Your task to perform on an android device: Search for "usb-c to usb-b" on walmart.com, select the first entry, add it to the cart, then select checkout. Image 0: 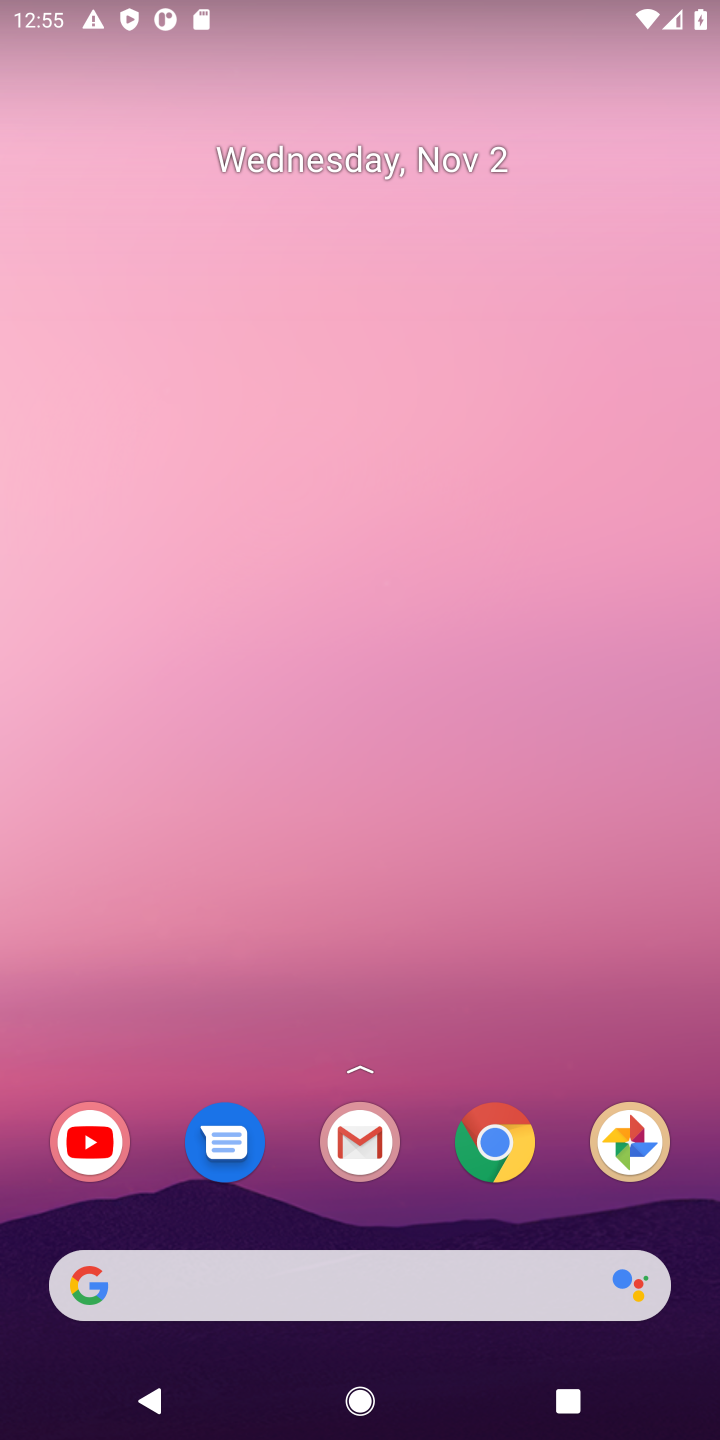
Step 0: press home button
Your task to perform on an android device: Search for "usb-c to usb-b" on walmart.com, select the first entry, add it to the cart, then select checkout. Image 1: 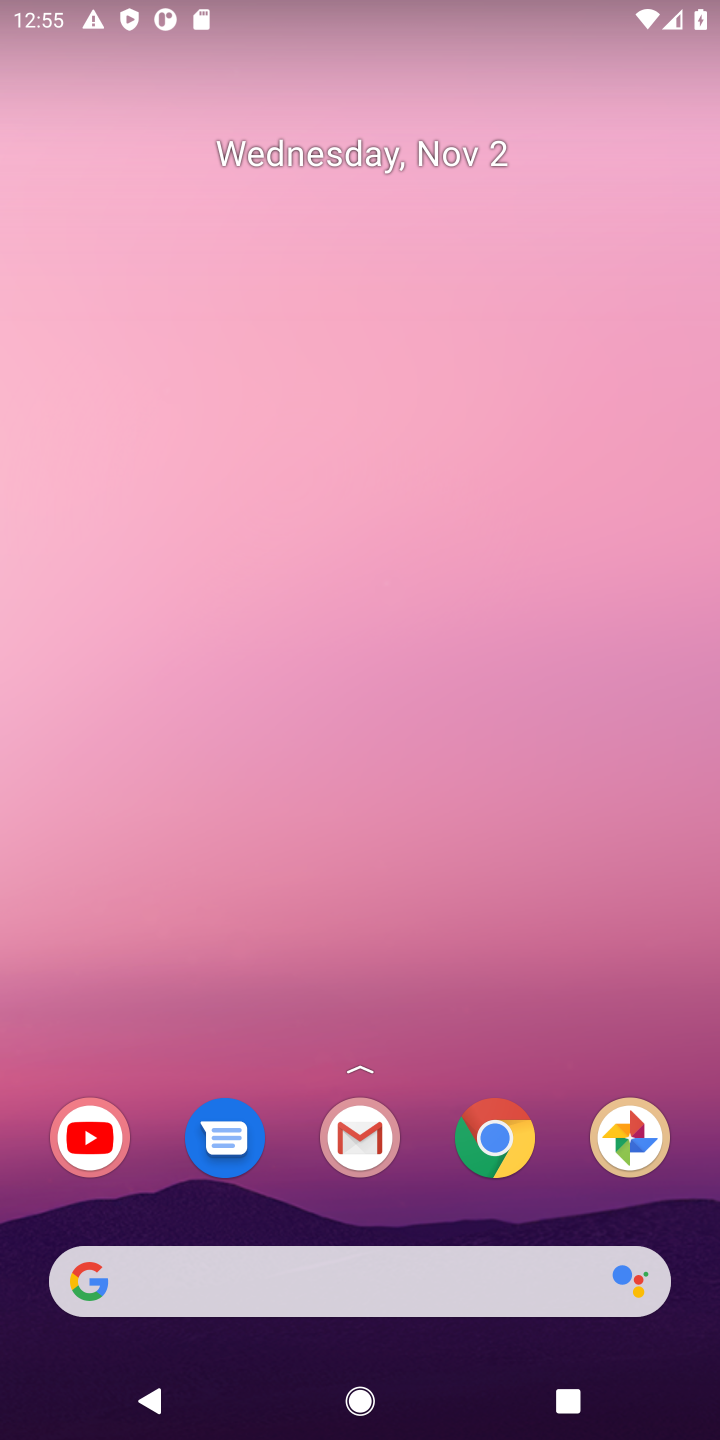
Step 1: press home button
Your task to perform on an android device: Search for "usb-c to usb-b" on walmart.com, select the first entry, add it to the cart, then select checkout. Image 2: 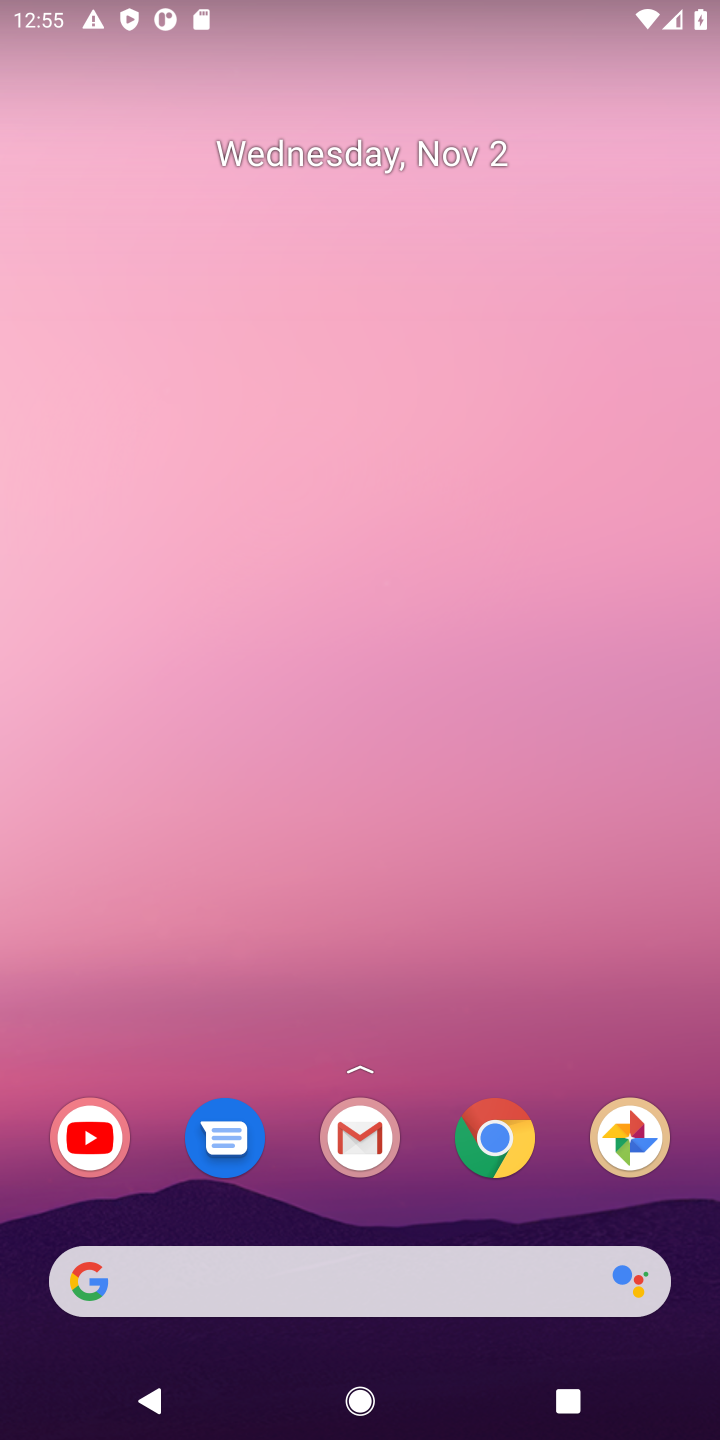
Step 2: click (144, 1282)
Your task to perform on an android device: Search for "usb-c to usb-b" on walmart.com, select the first entry, add it to the cart, then select checkout. Image 3: 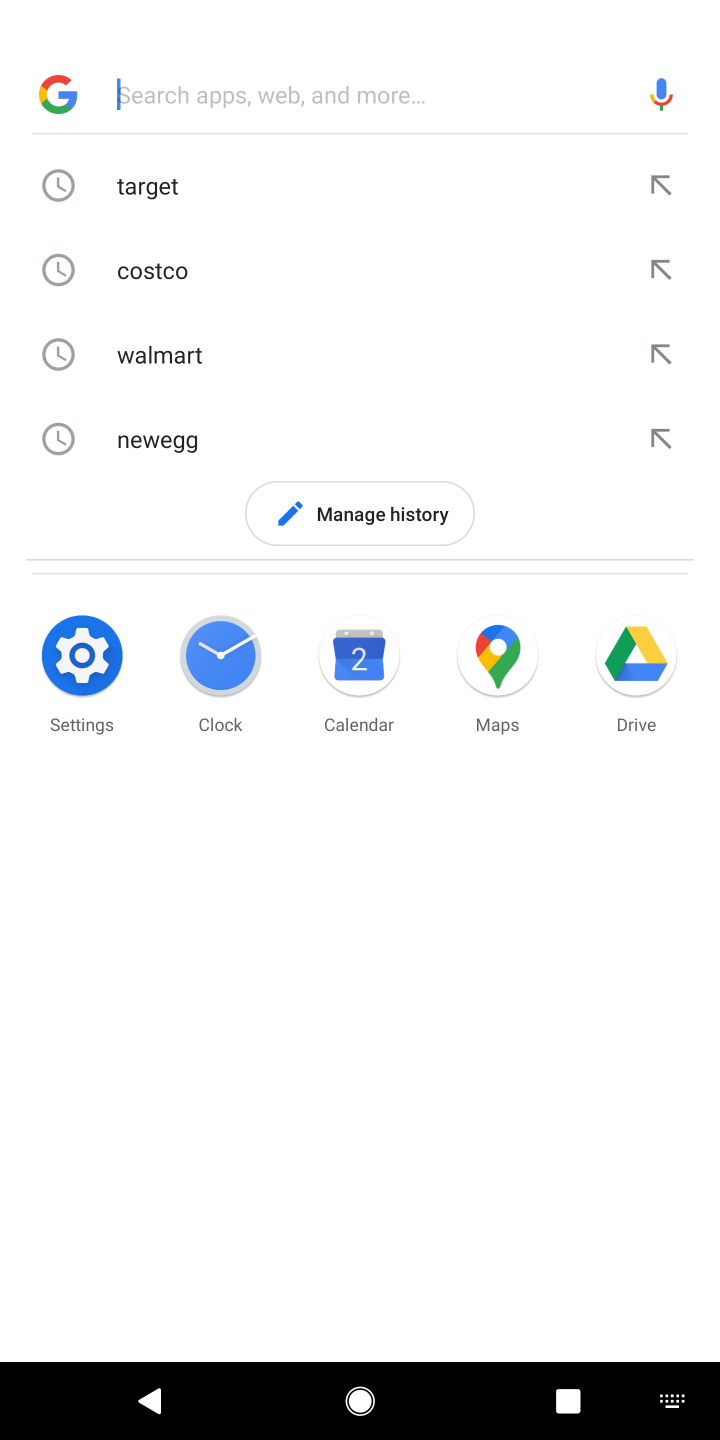
Step 3: click (195, 362)
Your task to perform on an android device: Search for "usb-c to usb-b" on walmart.com, select the first entry, add it to the cart, then select checkout. Image 4: 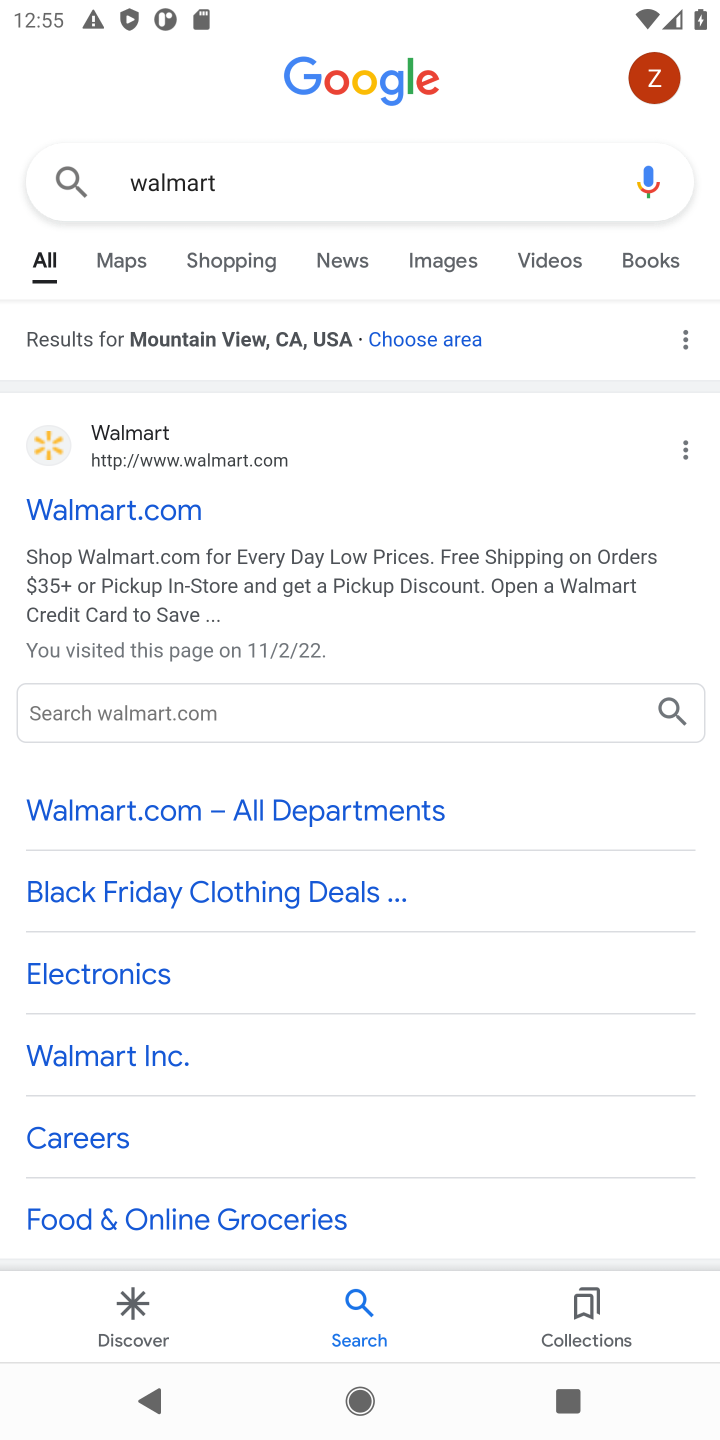
Step 4: click (130, 506)
Your task to perform on an android device: Search for "usb-c to usb-b" on walmart.com, select the first entry, add it to the cart, then select checkout. Image 5: 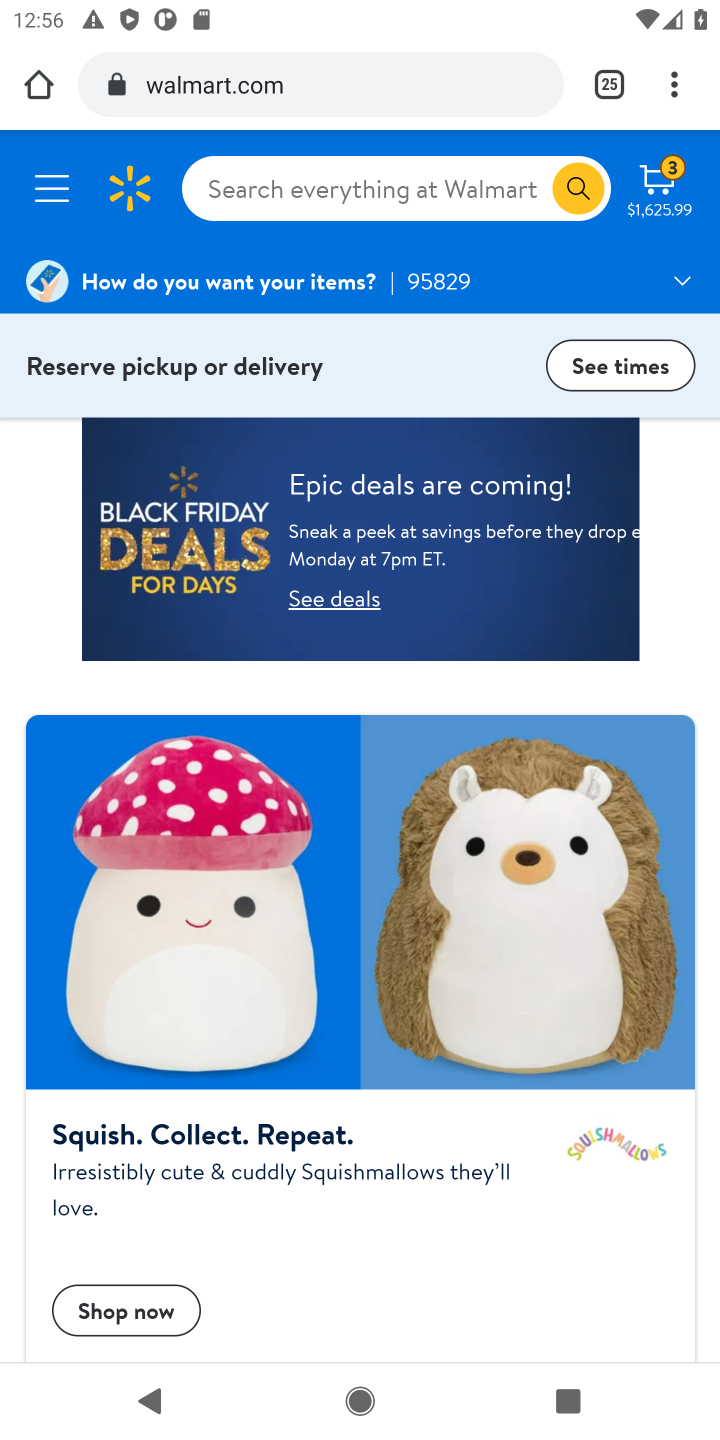
Step 5: type "usb-c to usb-b"
Your task to perform on an android device: Search for "usb-c to usb-b" on walmart.com, select the first entry, add it to the cart, then select checkout. Image 6: 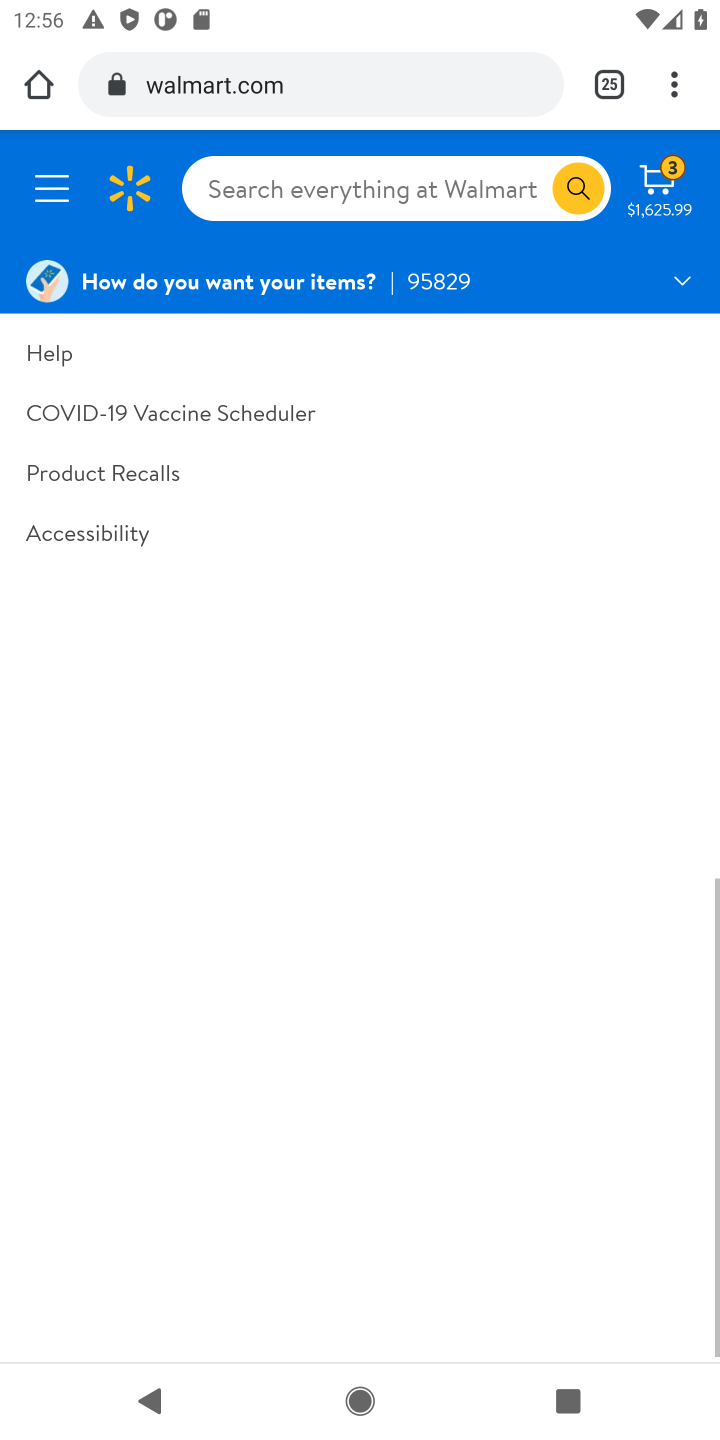
Step 6: press enter
Your task to perform on an android device: Search for "usb-c to usb-b" on walmart.com, select the first entry, add it to the cart, then select checkout. Image 7: 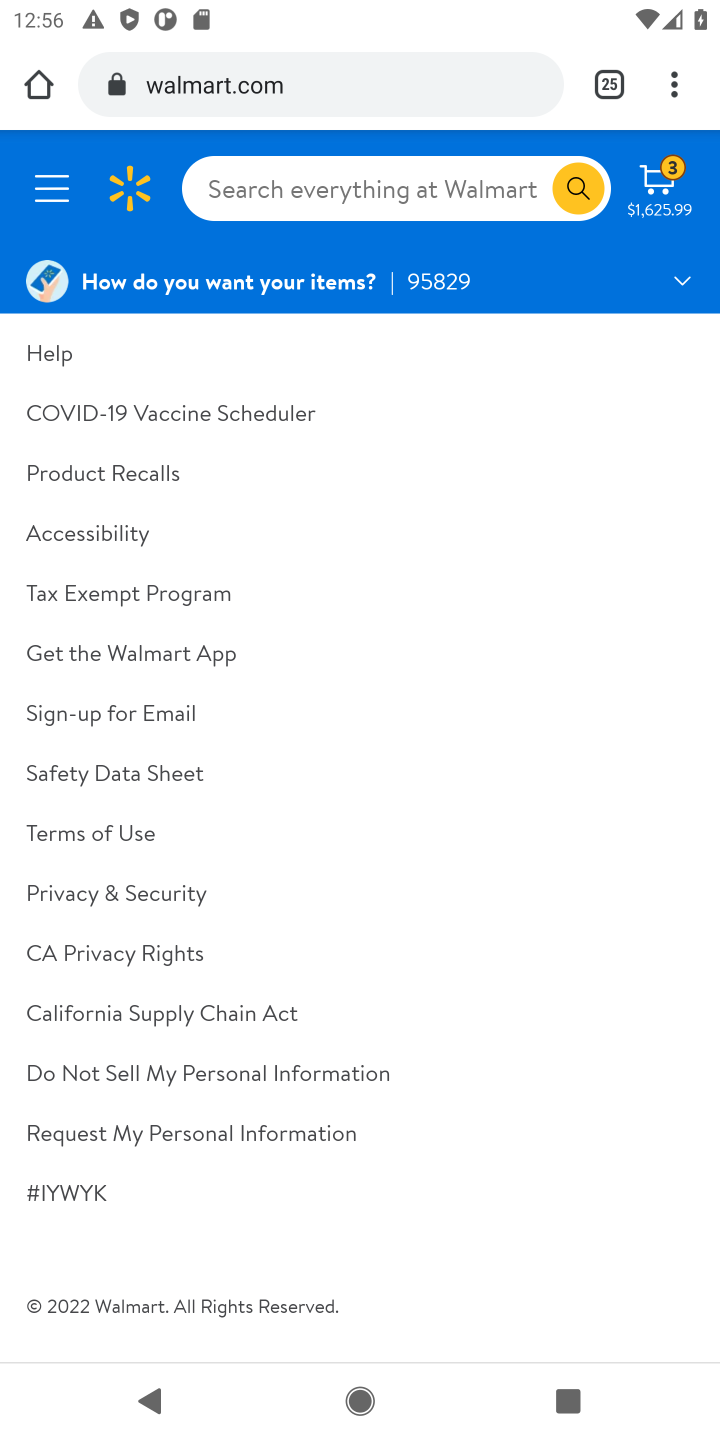
Step 7: click (310, 172)
Your task to perform on an android device: Search for "usb-c to usb-b" on walmart.com, select the first entry, add it to the cart, then select checkout. Image 8: 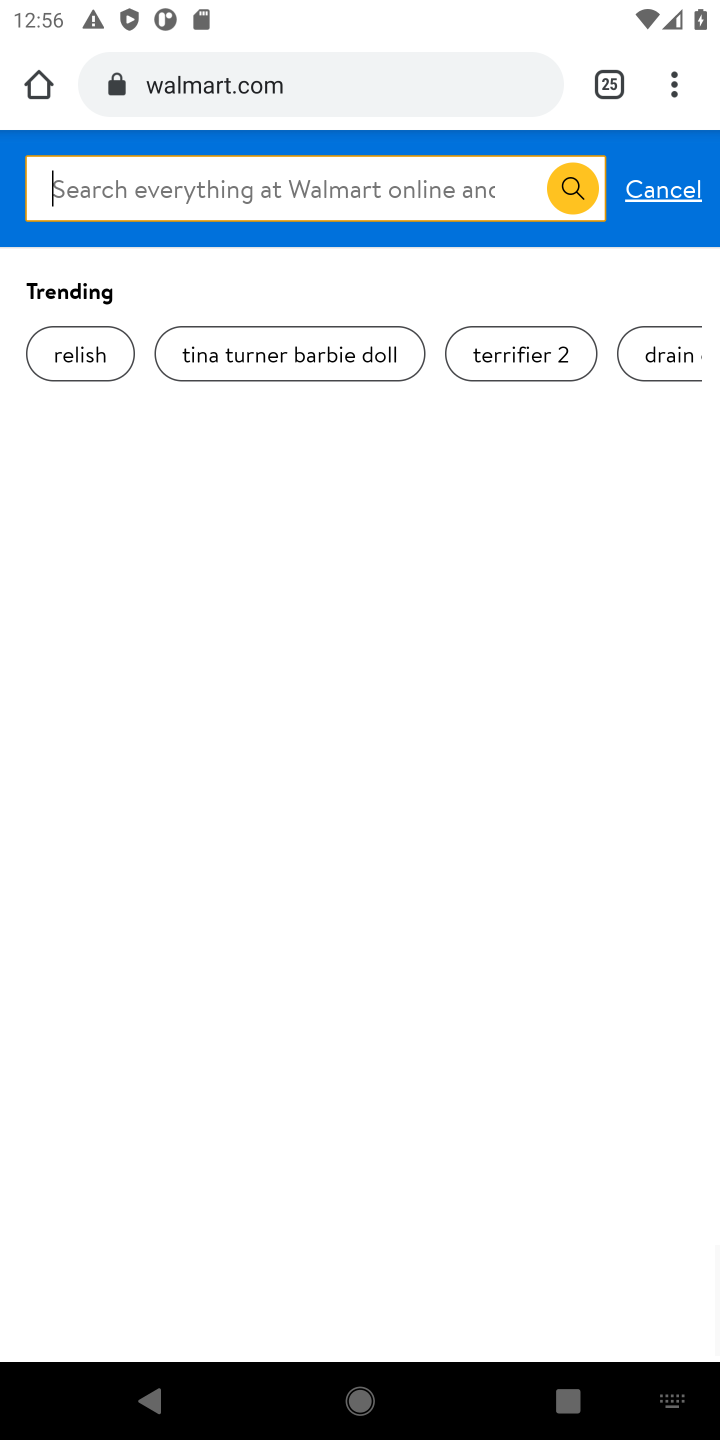
Step 8: type "usb-c to usb-b"
Your task to perform on an android device: Search for "usb-c to usb-b" on walmart.com, select the first entry, add it to the cart, then select checkout. Image 9: 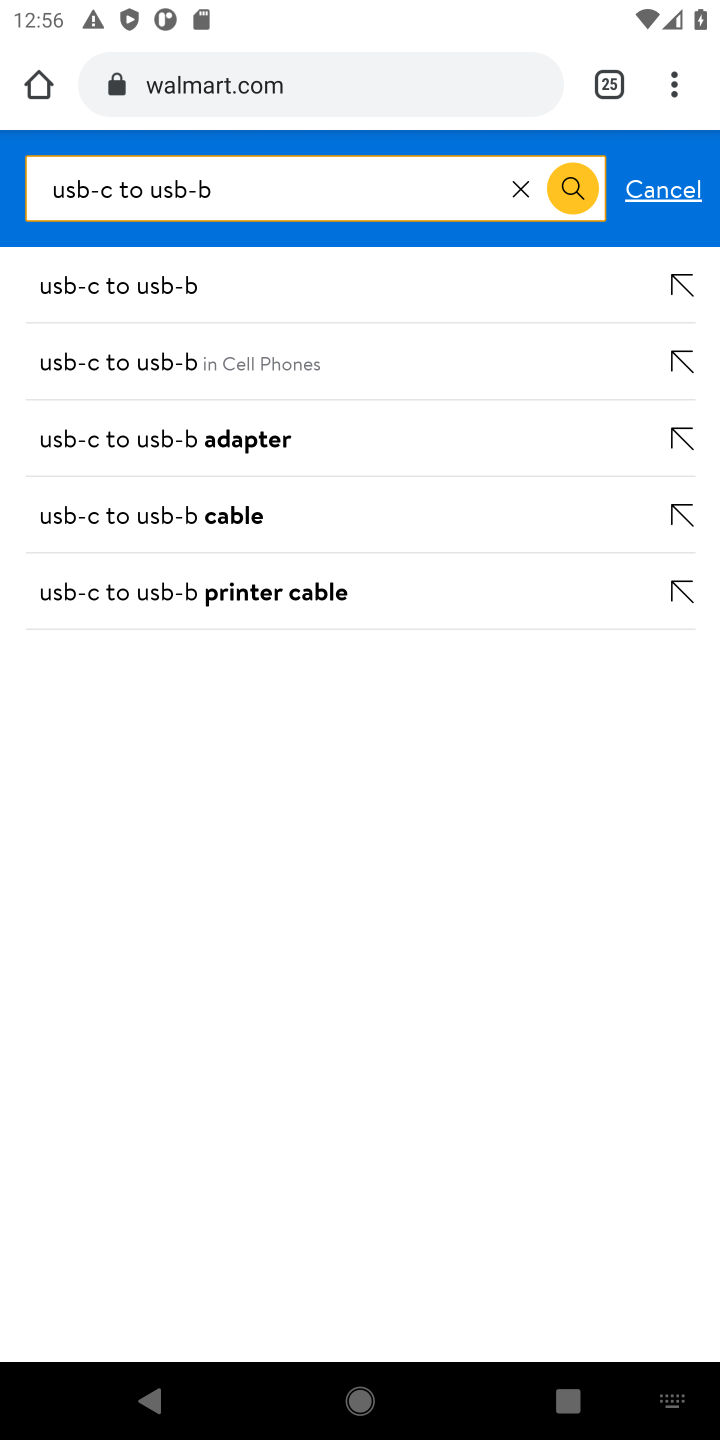
Step 9: click (164, 283)
Your task to perform on an android device: Search for "usb-c to usb-b" on walmart.com, select the first entry, add it to the cart, then select checkout. Image 10: 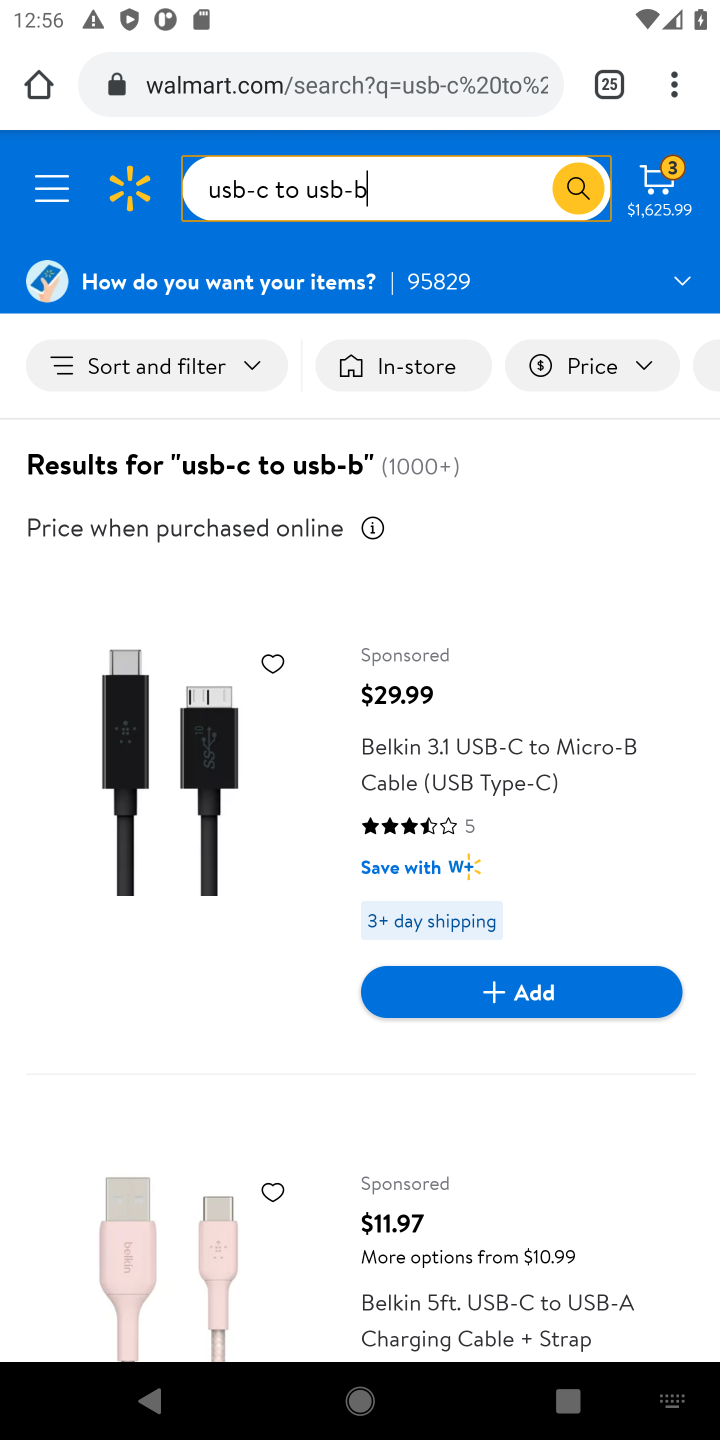
Step 10: drag from (484, 1139) to (488, 744)
Your task to perform on an android device: Search for "usb-c to usb-b" on walmart.com, select the first entry, add it to the cart, then select checkout. Image 11: 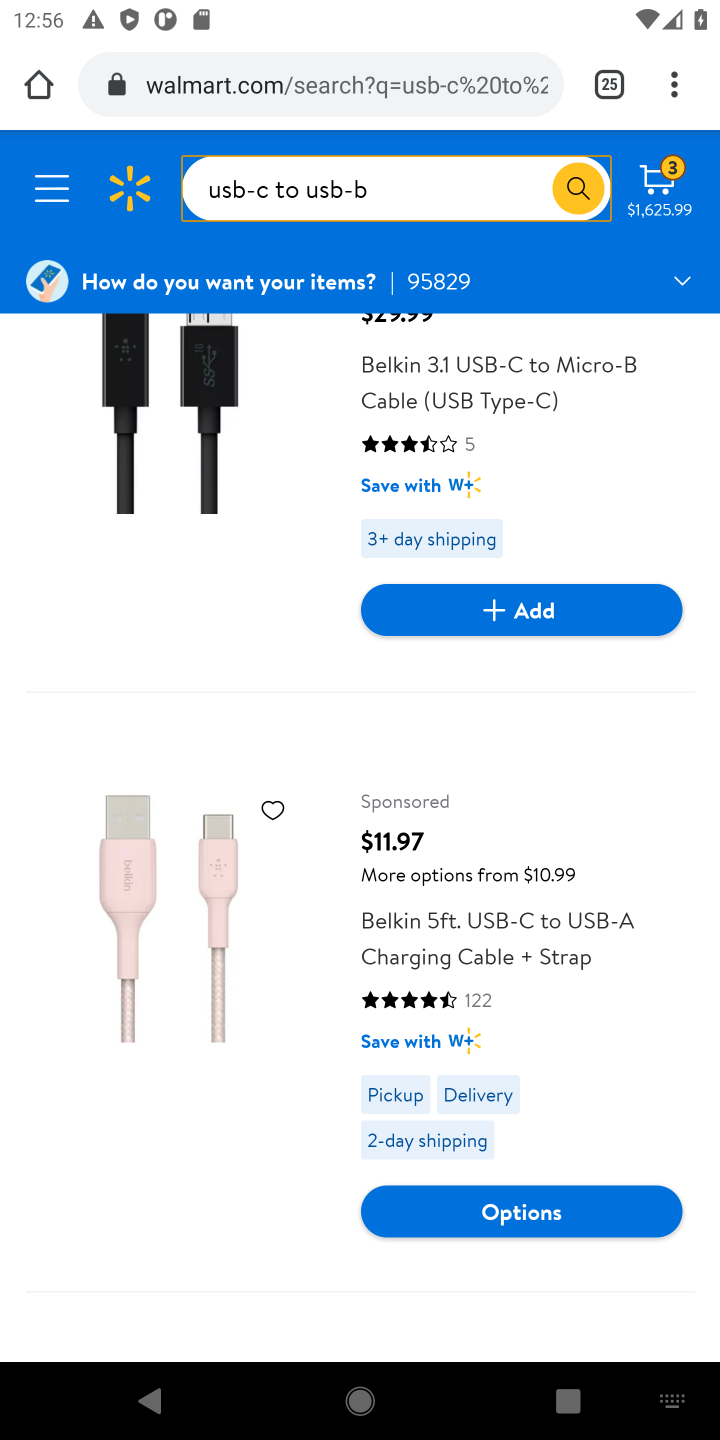
Step 11: drag from (410, 1002) to (446, 771)
Your task to perform on an android device: Search for "usb-c to usb-b" on walmart.com, select the first entry, add it to the cart, then select checkout. Image 12: 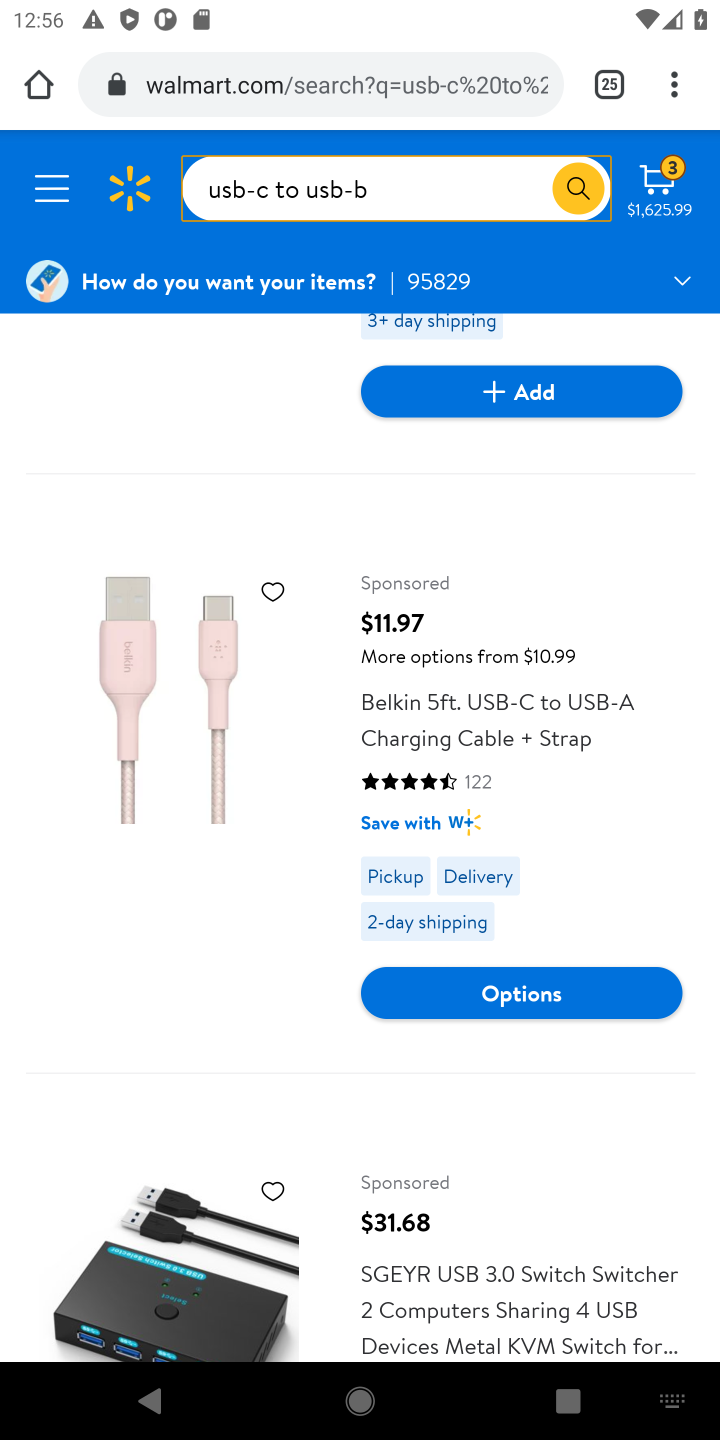
Step 12: drag from (311, 1012) to (349, 756)
Your task to perform on an android device: Search for "usb-c to usb-b" on walmart.com, select the first entry, add it to the cart, then select checkout. Image 13: 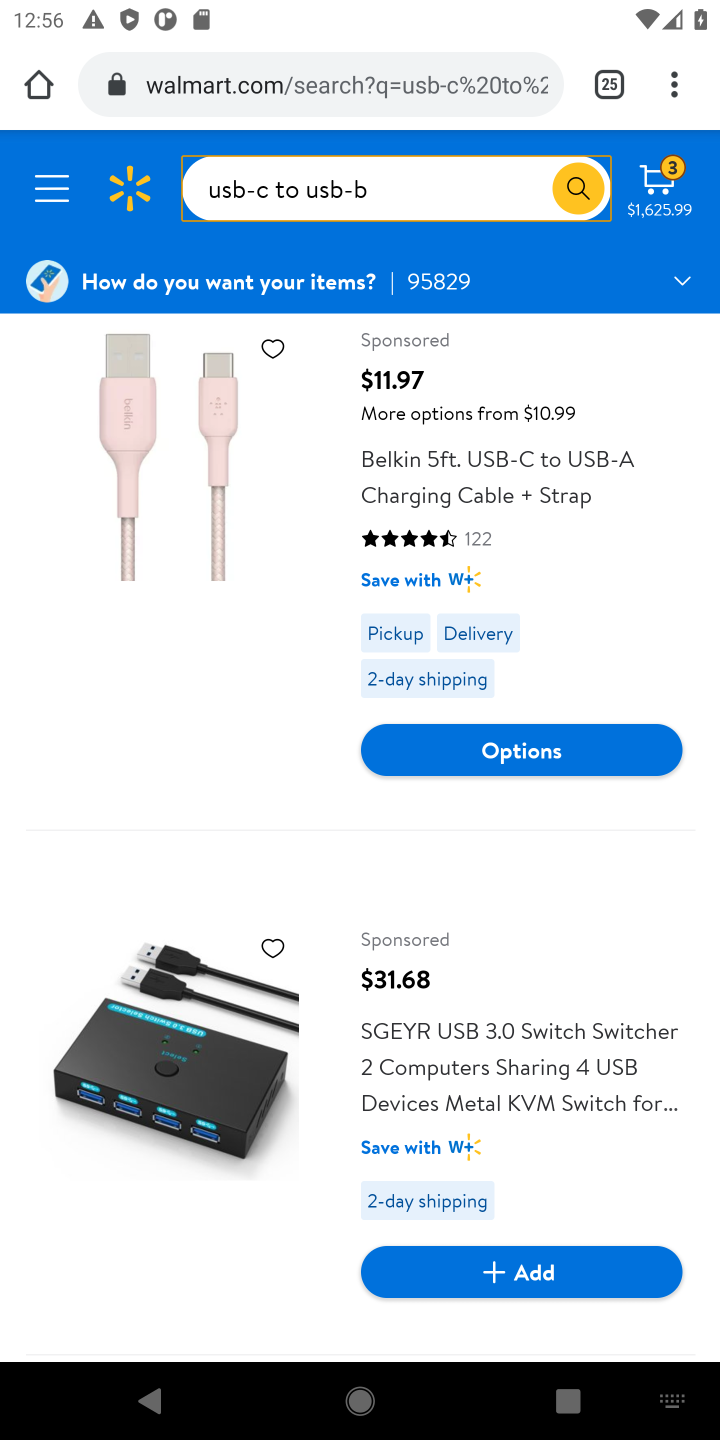
Step 13: drag from (385, 1041) to (401, 708)
Your task to perform on an android device: Search for "usb-c to usb-b" on walmart.com, select the first entry, add it to the cart, then select checkout. Image 14: 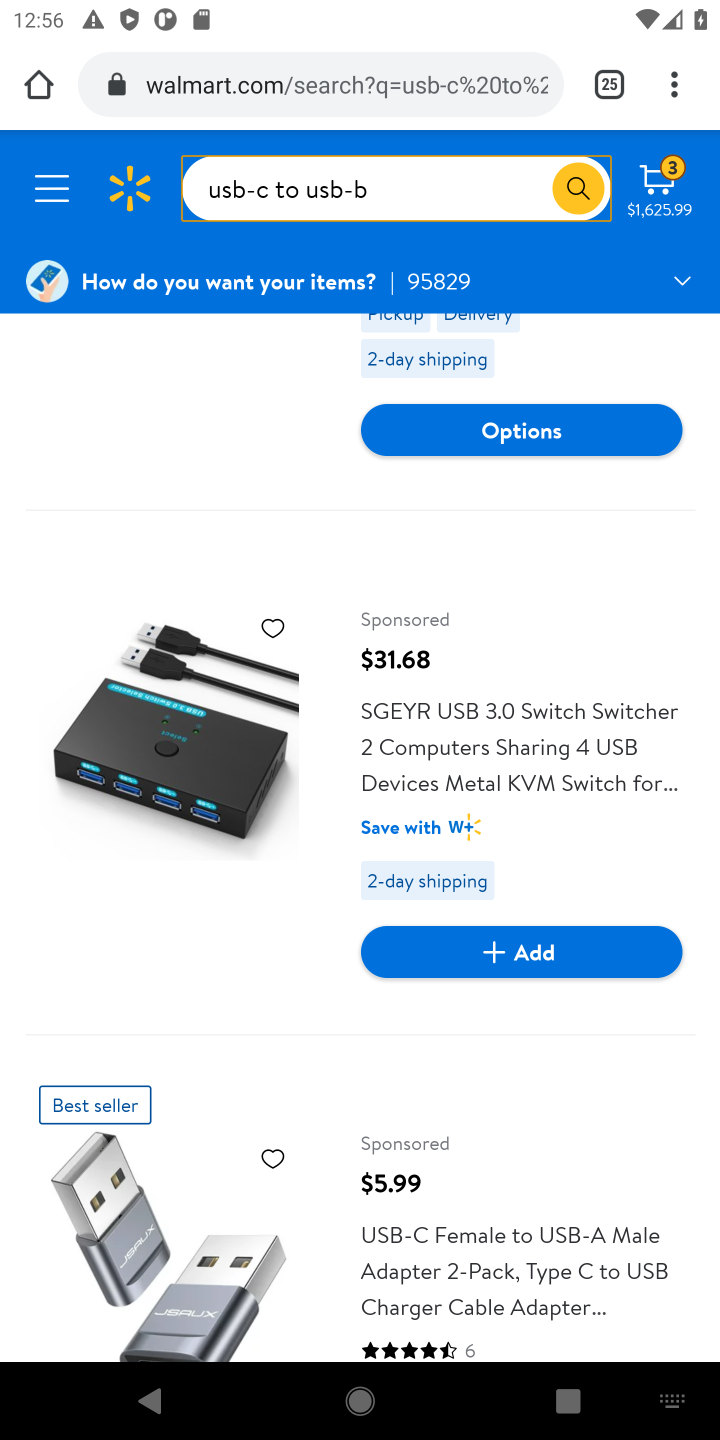
Step 14: drag from (366, 1024) to (400, 679)
Your task to perform on an android device: Search for "usb-c to usb-b" on walmart.com, select the first entry, add it to the cart, then select checkout. Image 15: 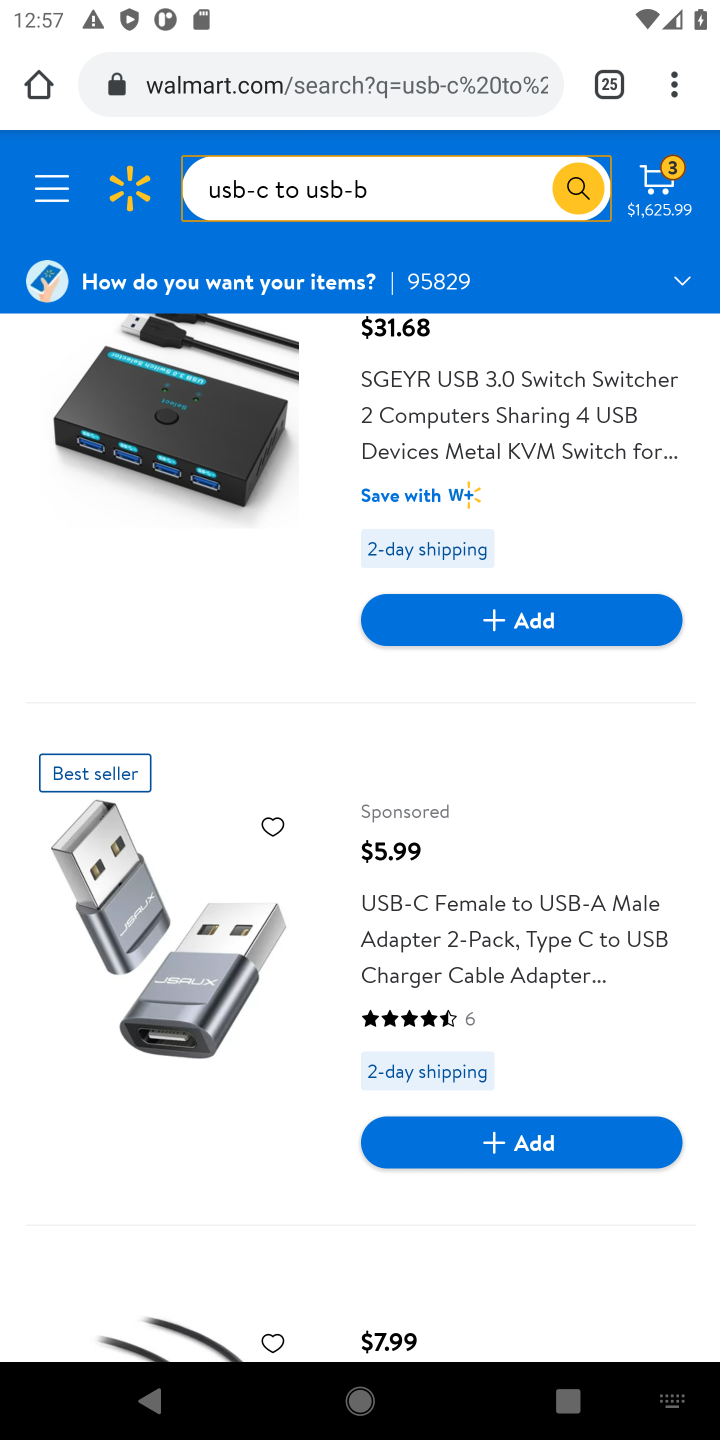
Step 15: drag from (333, 1083) to (343, 851)
Your task to perform on an android device: Search for "usb-c to usb-b" on walmart.com, select the first entry, add it to the cart, then select checkout. Image 16: 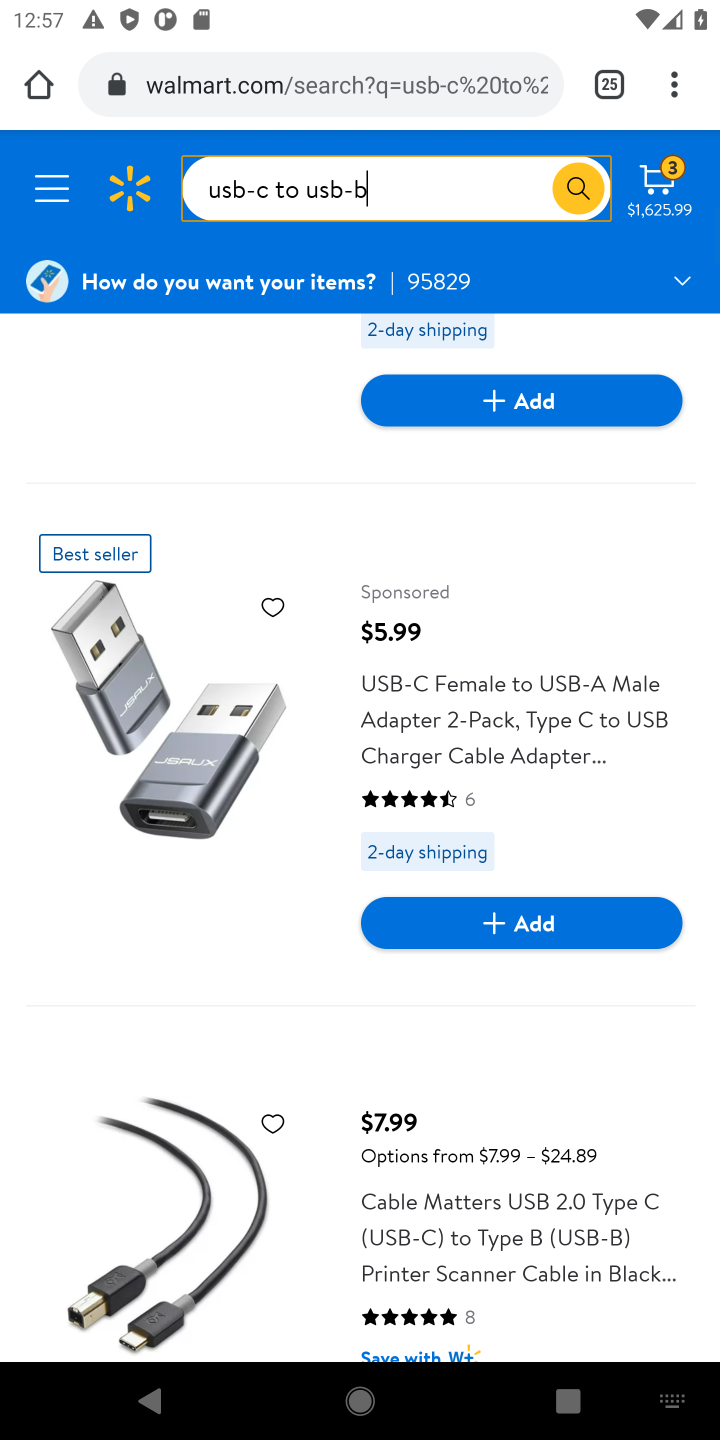
Step 16: drag from (265, 1140) to (289, 892)
Your task to perform on an android device: Search for "usb-c to usb-b" on walmart.com, select the first entry, add it to the cart, then select checkout. Image 17: 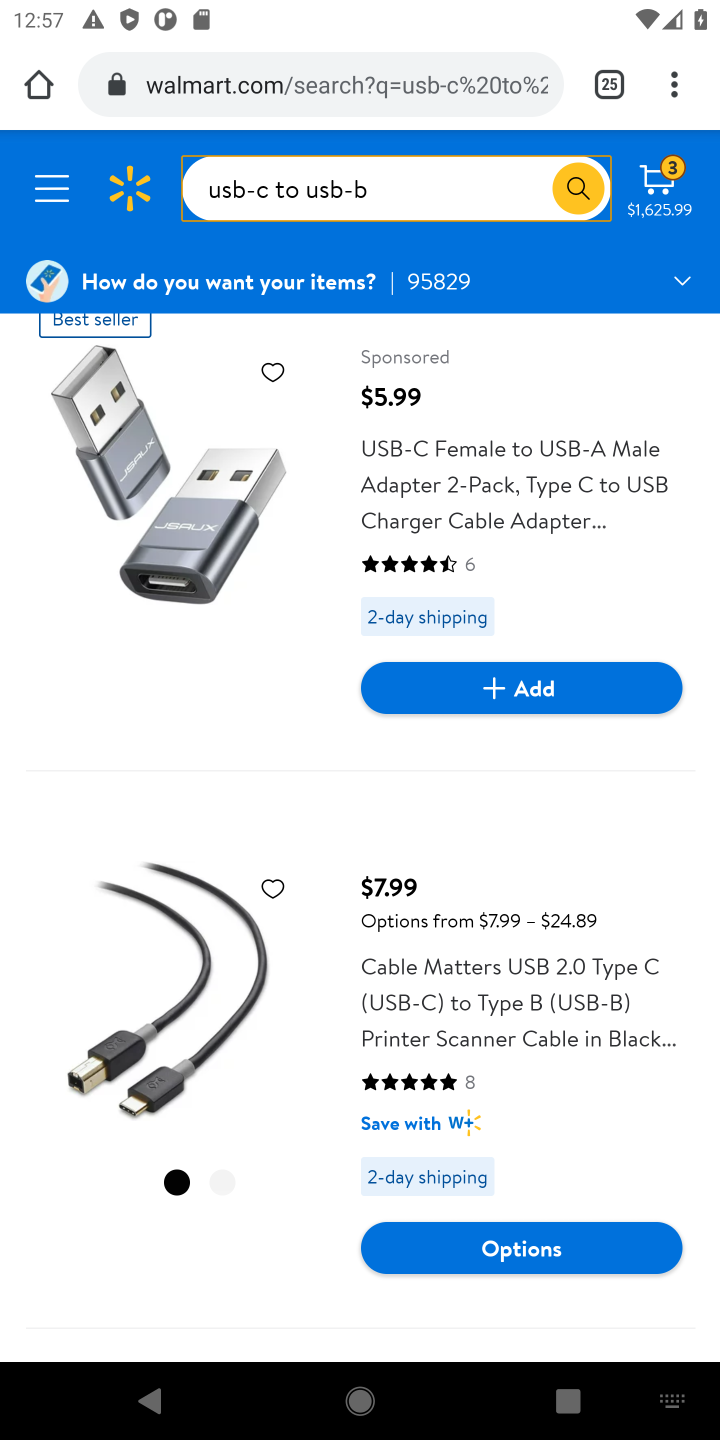
Step 17: click (443, 967)
Your task to perform on an android device: Search for "usb-c to usb-b" on walmart.com, select the first entry, add it to the cart, then select checkout. Image 18: 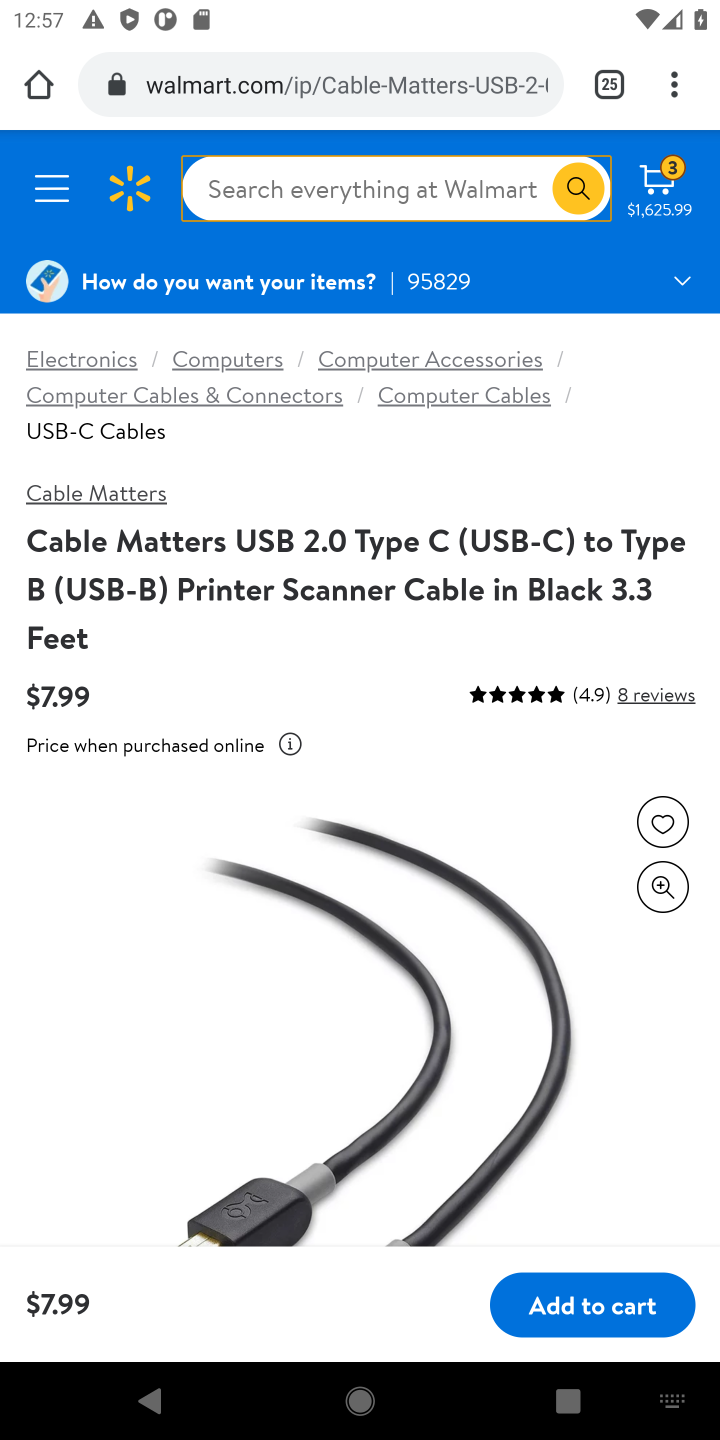
Step 18: click (575, 1306)
Your task to perform on an android device: Search for "usb-c to usb-b" on walmart.com, select the first entry, add it to the cart, then select checkout. Image 19: 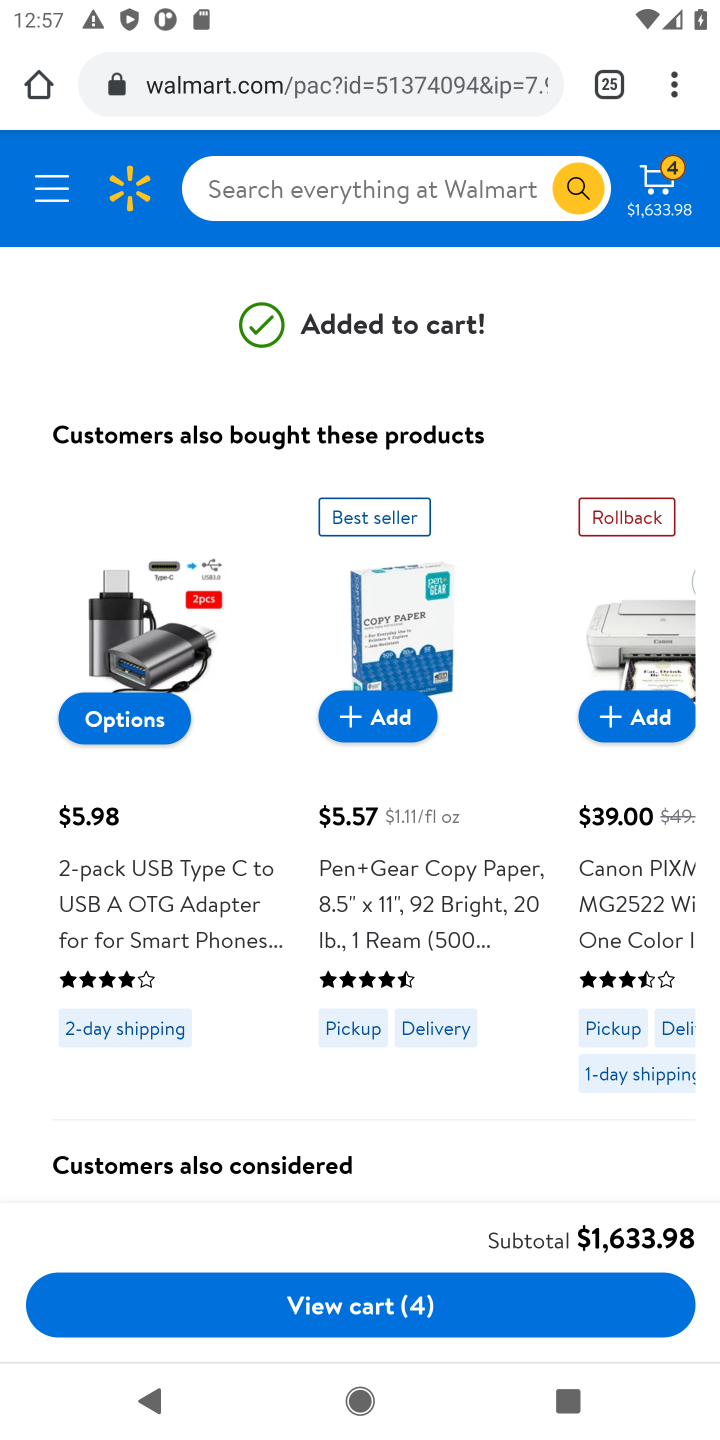
Step 19: click (405, 1311)
Your task to perform on an android device: Search for "usb-c to usb-b" on walmart.com, select the first entry, add it to the cart, then select checkout. Image 20: 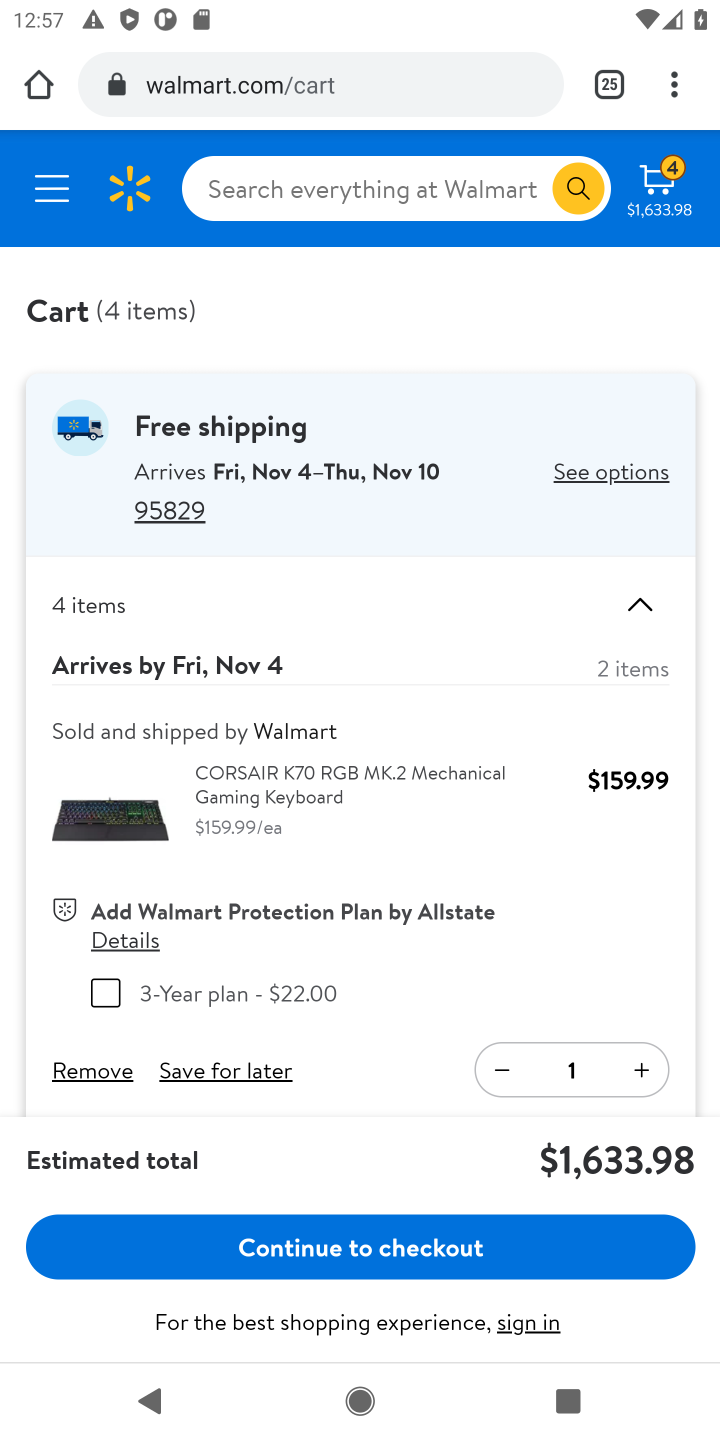
Step 20: click (328, 1246)
Your task to perform on an android device: Search for "usb-c to usb-b" on walmart.com, select the first entry, add it to the cart, then select checkout. Image 21: 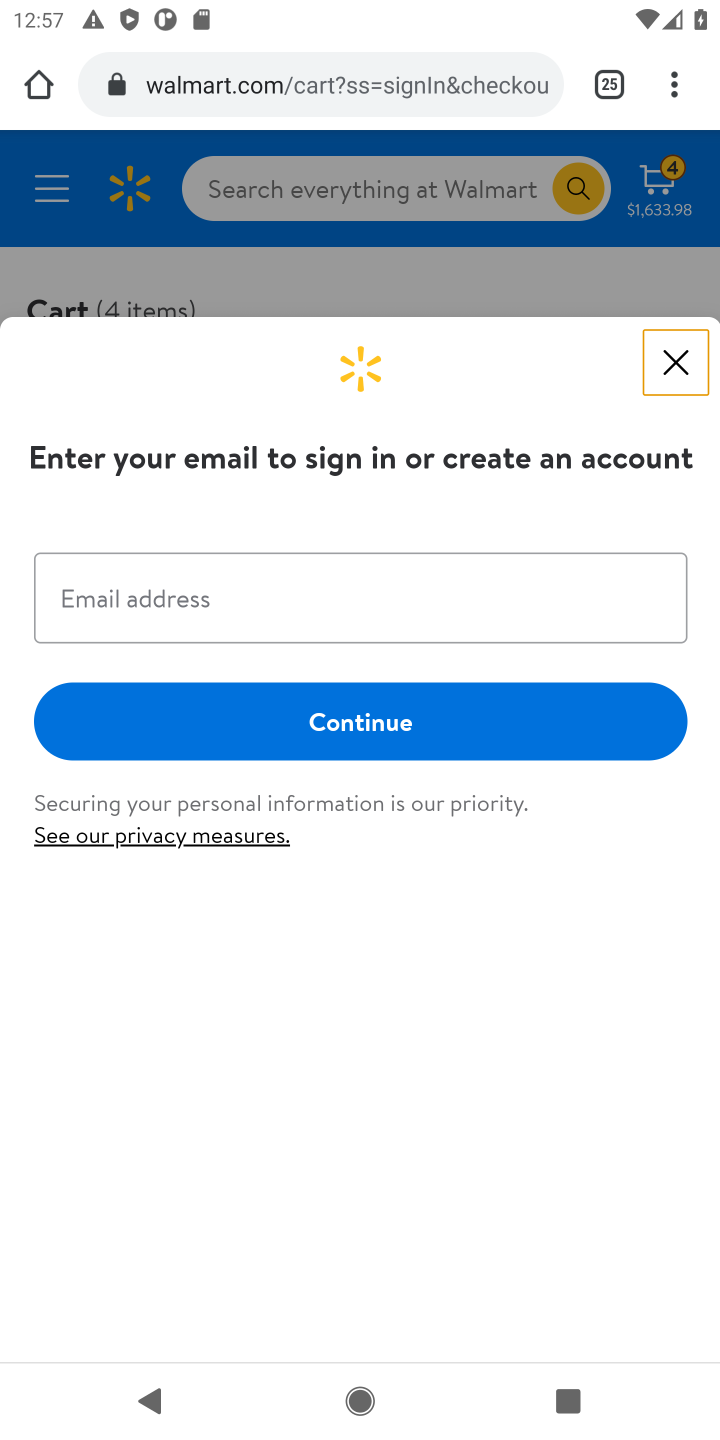
Step 21: task complete